Your task to perform on an android device: turn on notifications settings in the gmail app Image 0: 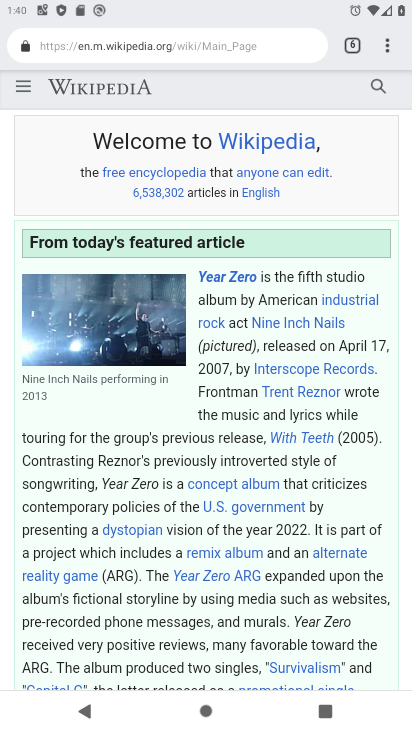
Step 0: press home button
Your task to perform on an android device: turn on notifications settings in the gmail app Image 1: 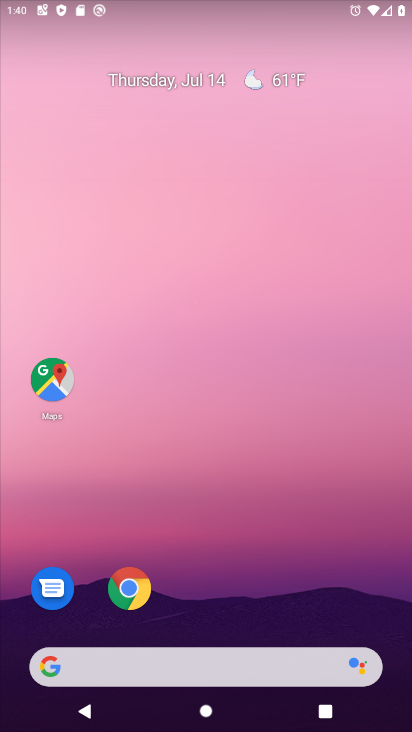
Step 1: drag from (225, 633) to (230, 353)
Your task to perform on an android device: turn on notifications settings in the gmail app Image 2: 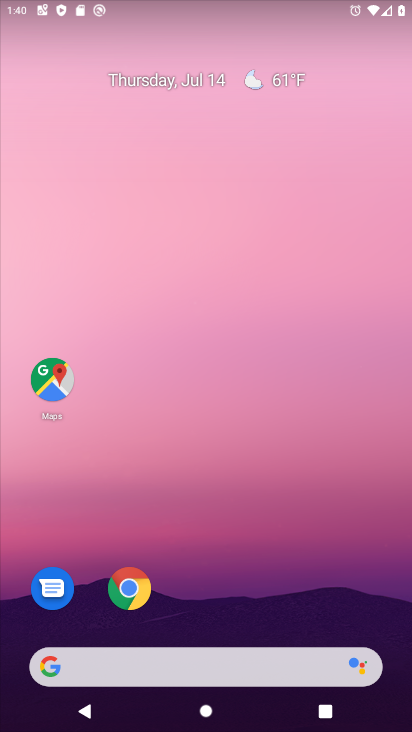
Step 2: drag from (220, 586) to (218, 315)
Your task to perform on an android device: turn on notifications settings in the gmail app Image 3: 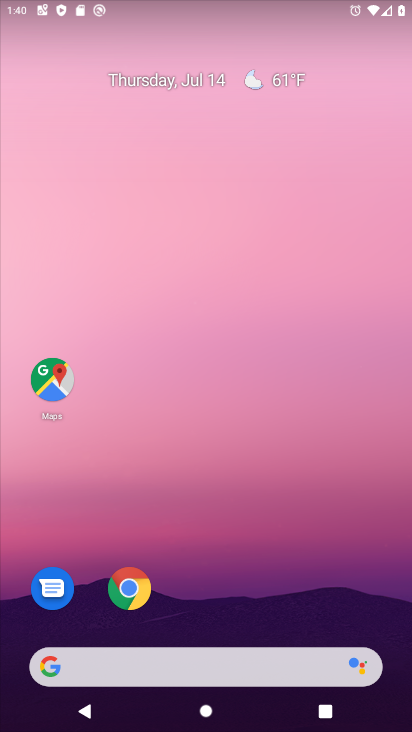
Step 3: drag from (209, 618) to (256, 179)
Your task to perform on an android device: turn on notifications settings in the gmail app Image 4: 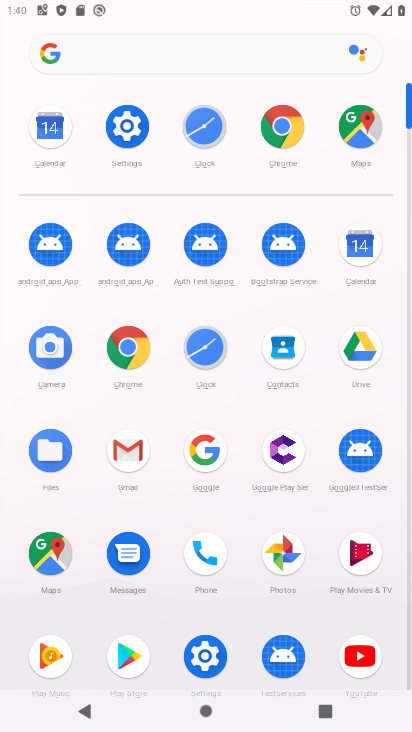
Step 4: click (119, 443)
Your task to perform on an android device: turn on notifications settings in the gmail app Image 5: 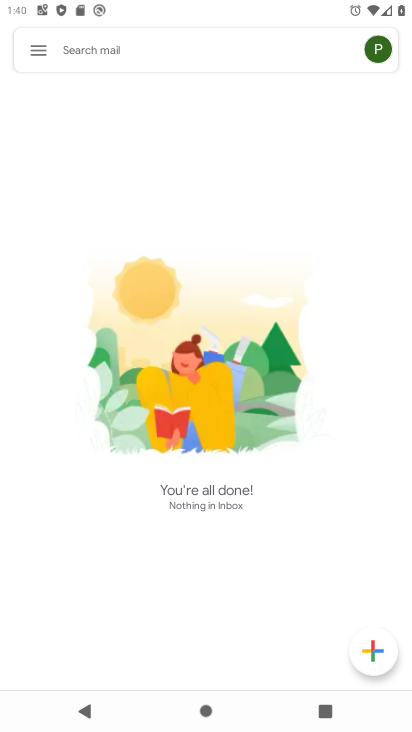
Step 5: click (382, 43)
Your task to perform on an android device: turn on notifications settings in the gmail app Image 6: 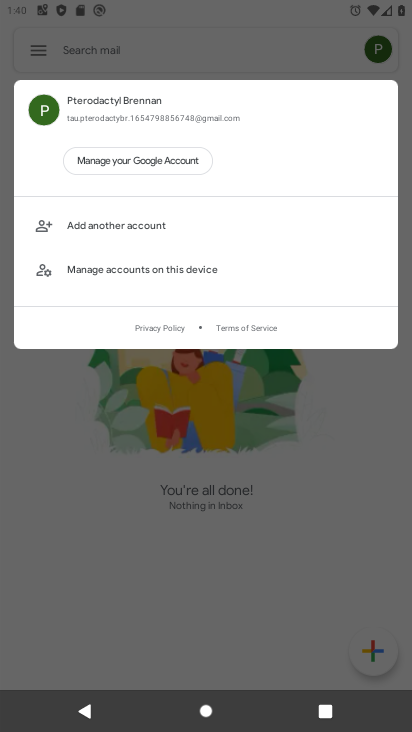
Step 6: click (187, 433)
Your task to perform on an android device: turn on notifications settings in the gmail app Image 7: 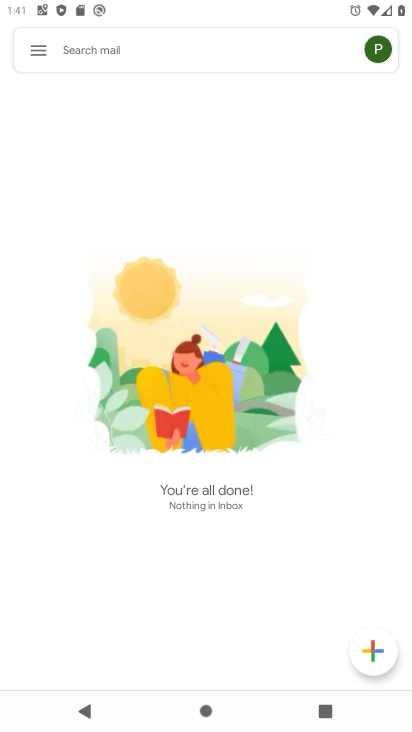
Step 7: click (38, 53)
Your task to perform on an android device: turn on notifications settings in the gmail app Image 8: 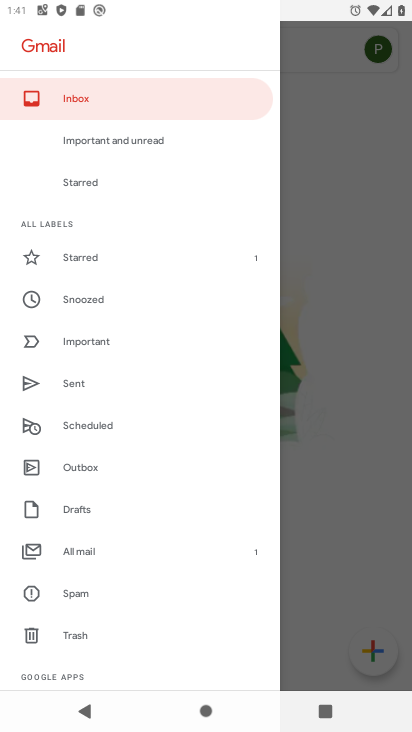
Step 8: drag from (91, 601) to (116, 308)
Your task to perform on an android device: turn on notifications settings in the gmail app Image 9: 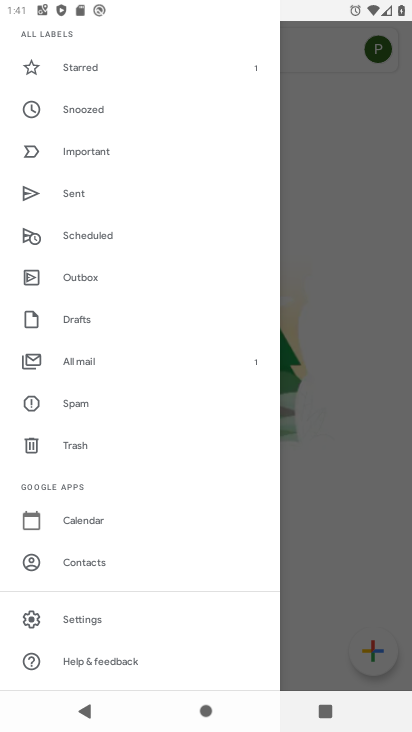
Step 9: drag from (124, 454) to (141, 324)
Your task to perform on an android device: turn on notifications settings in the gmail app Image 10: 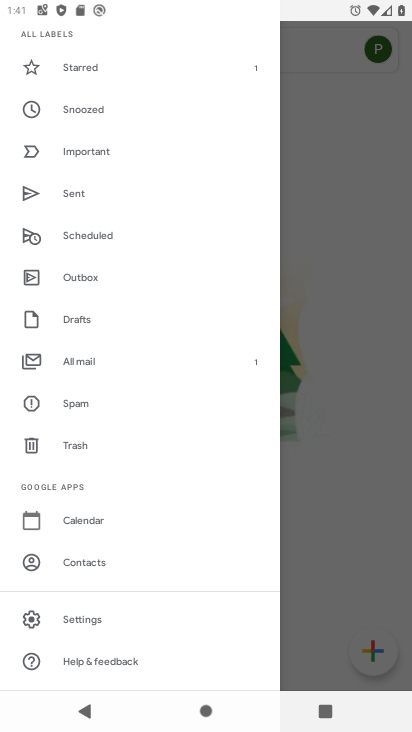
Step 10: click (90, 620)
Your task to perform on an android device: turn on notifications settings in the gmail app Image 11: 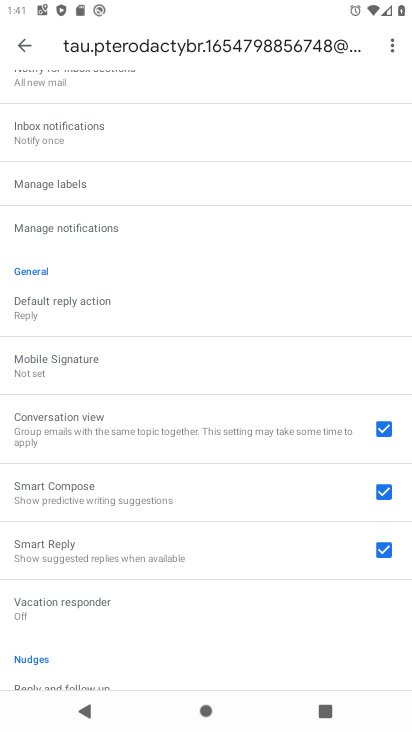
Step 11: click (175, 122)
Your task to perform on an android device: turn on notifications settings in the gmail app Image 12: 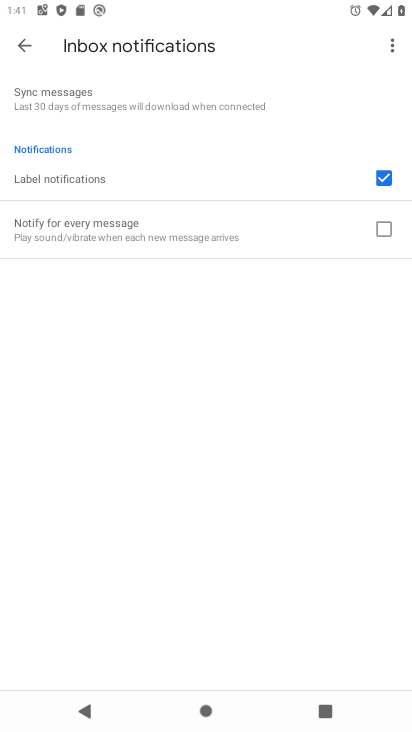
Step 12: click (18, 53)
Your task to perform on an android device: turn on notifications settings in the gmail app Image 13: 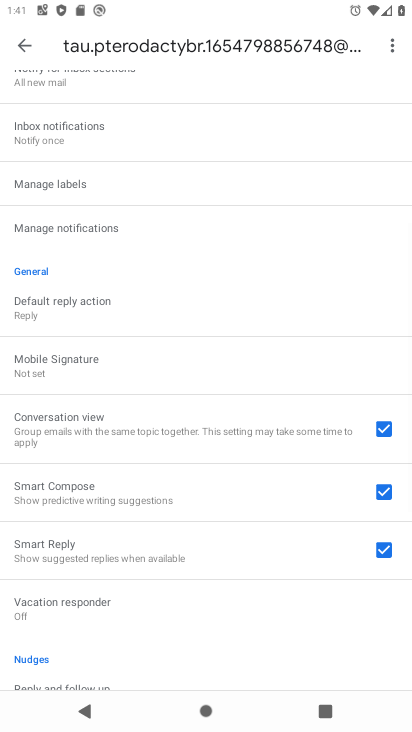
Step 13: task complete